Your task to perform on an android device: Play the latest video from the BBC Image 0: 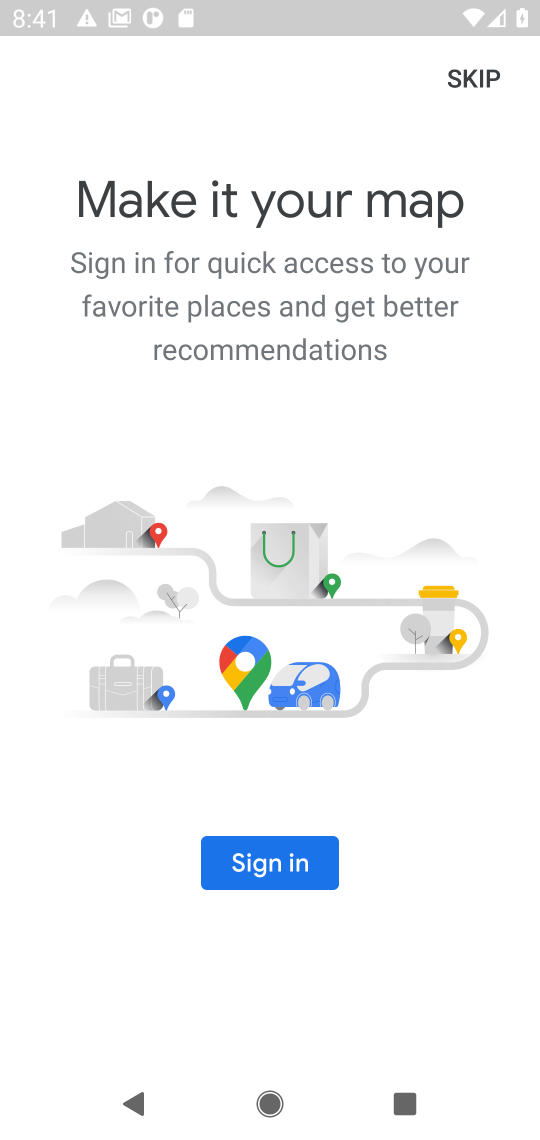
Step 0: press home button
Your task to perform on an android device: Play the latest video from the BBC Image 1: 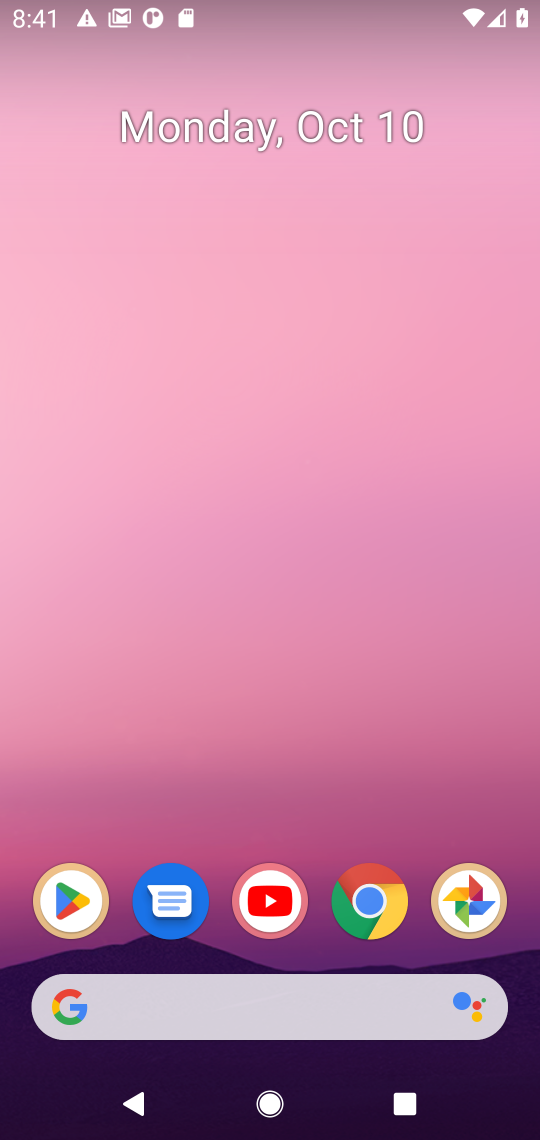
Step 1: click (294, 1021)
Your task to perform on an android device: Play the latest video from the BBC Image 2: 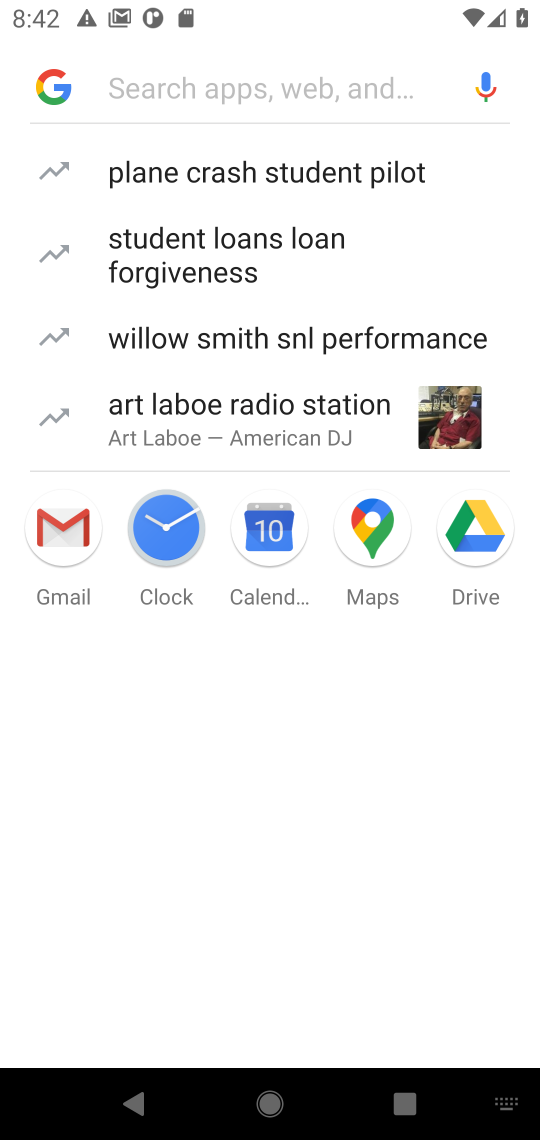
Step 2: press enter
Your task to perform on an android device: Play the latest video from the BBC Image 3: 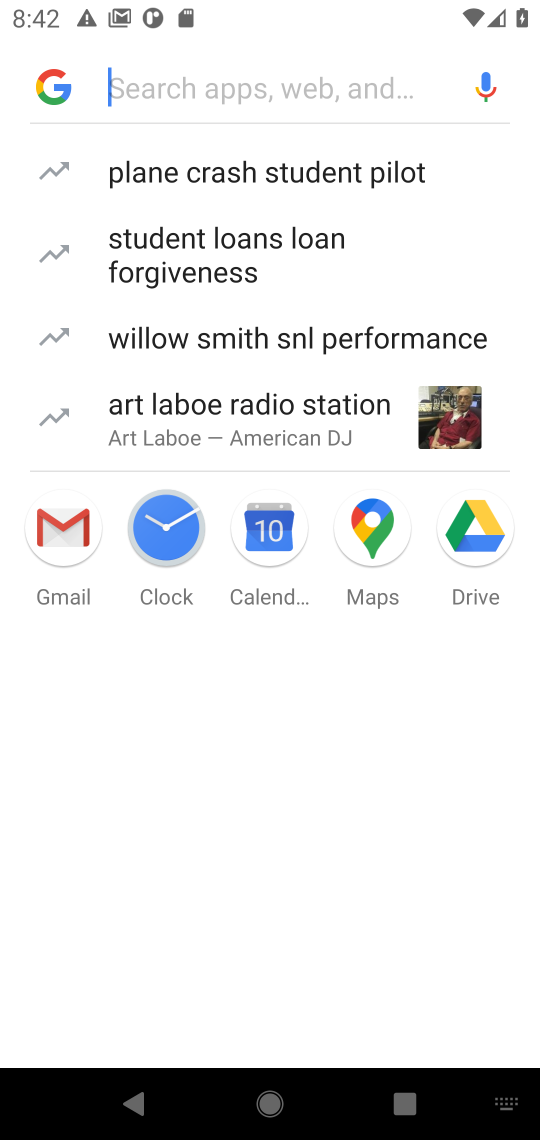
Step 3: type "Play the latest video from the BBC"
Your task to perform on an android device: Play the latest video from the BBC Image 4: 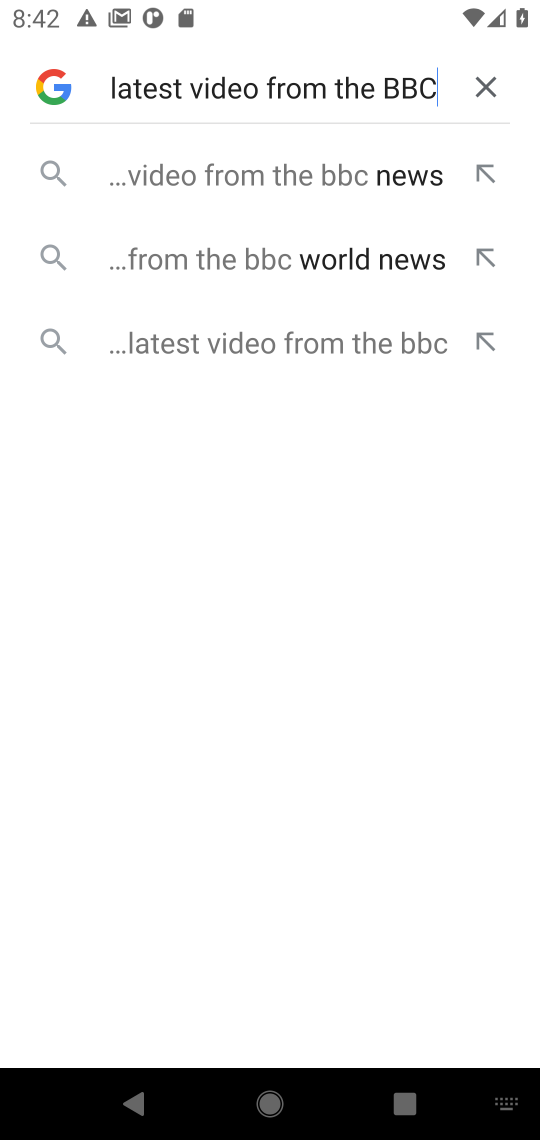
Step 4: press enter
Your task to perform on an android device: Play the latest video from the BBC Image 5: 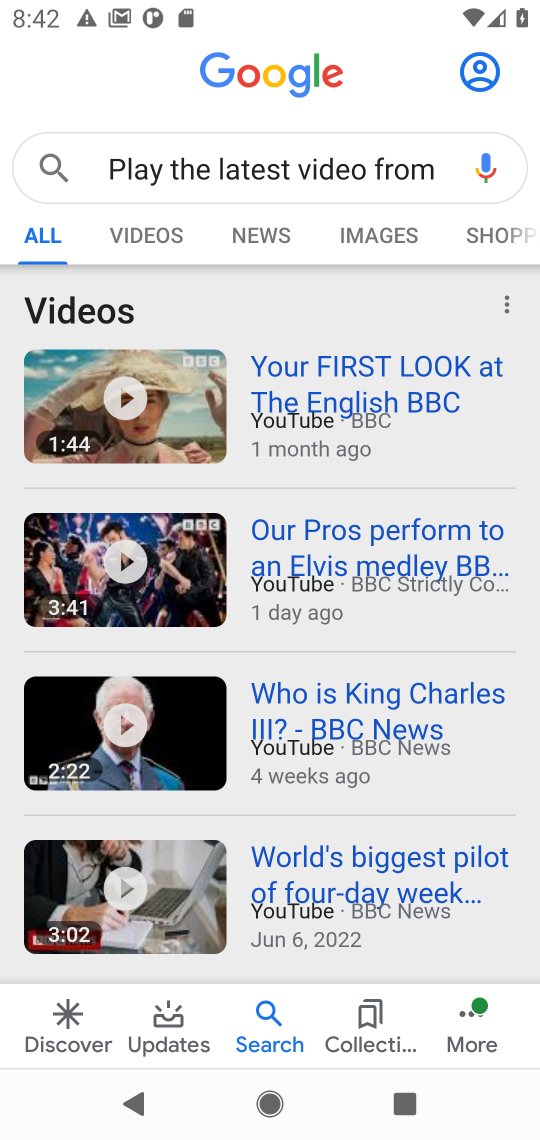
Step 5: click (126, 396)
Your task to perform on an android device: Play the latest video from the BBC Image 6: 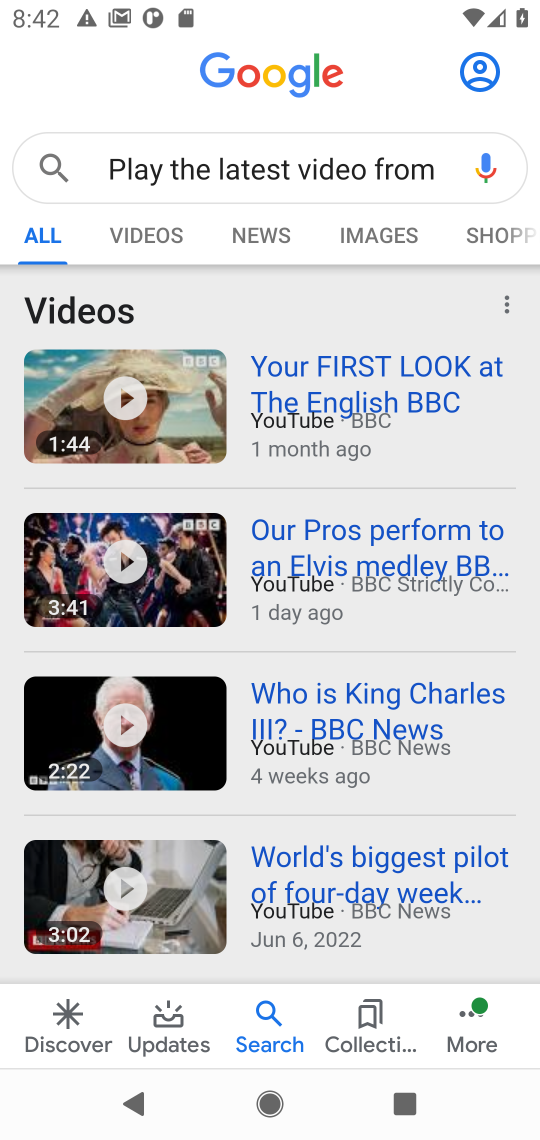
Step 6: click (359, 355)
Your task to perform on an android device: Play the latest video from the BBC Image 7: 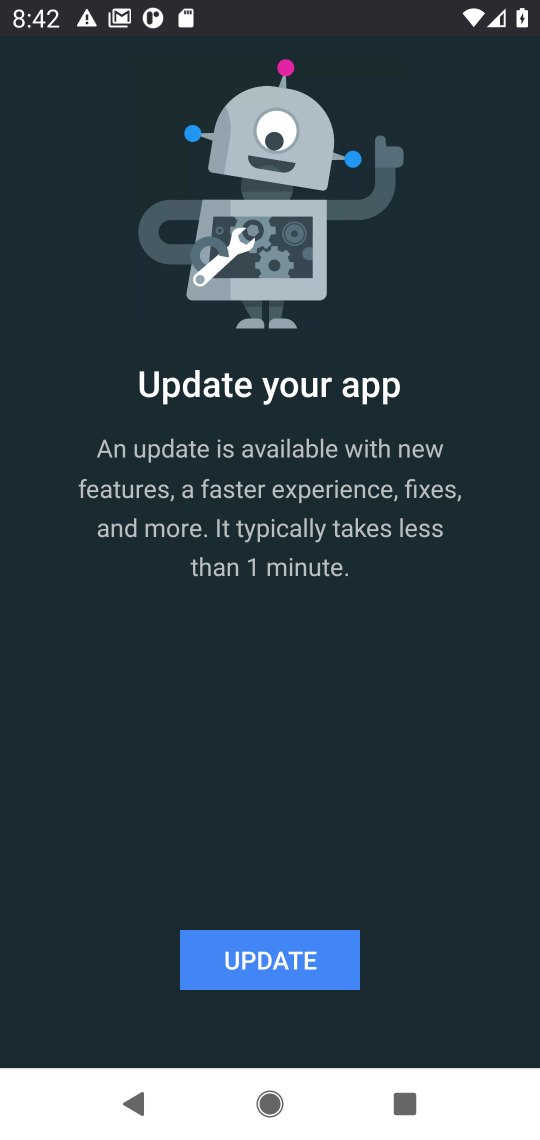
Step 7: click (283, 972)
Your task to perform on an android device: Play the latest video from the BBC Image 8: 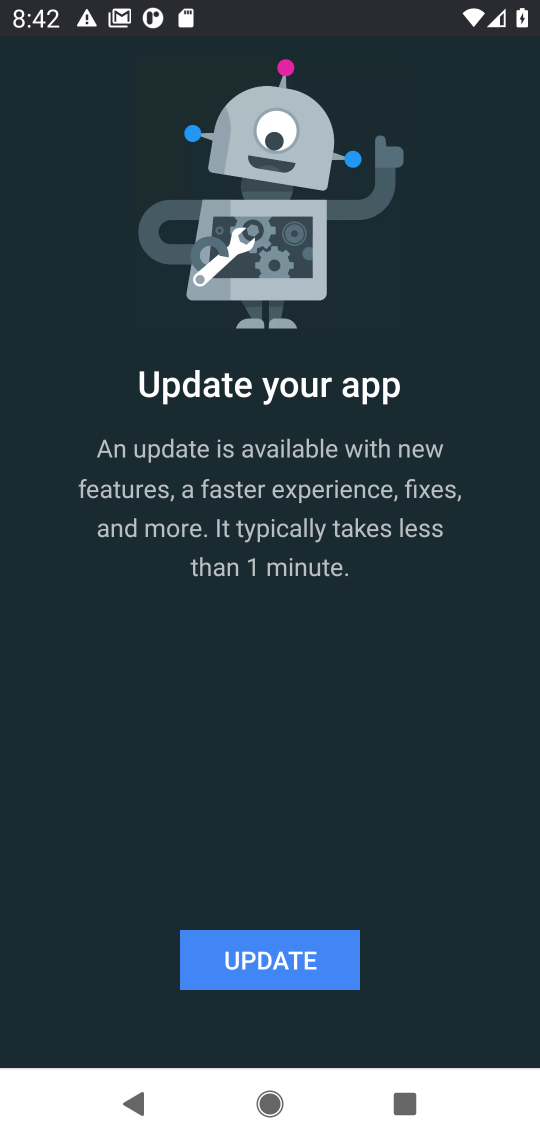
Step 8: click (272, 985)
Your task to perform on an android device: Play the latest video from the BBC Image 9: 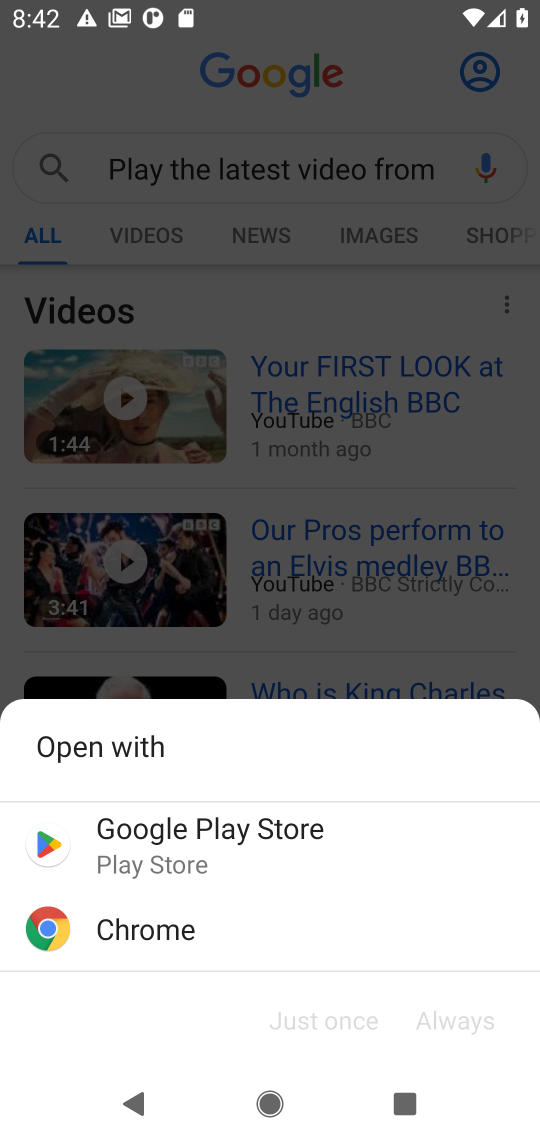
Step 9: click (213, 845)
Your task to perform on an android device: Play the latest video from the BBC Image 10: 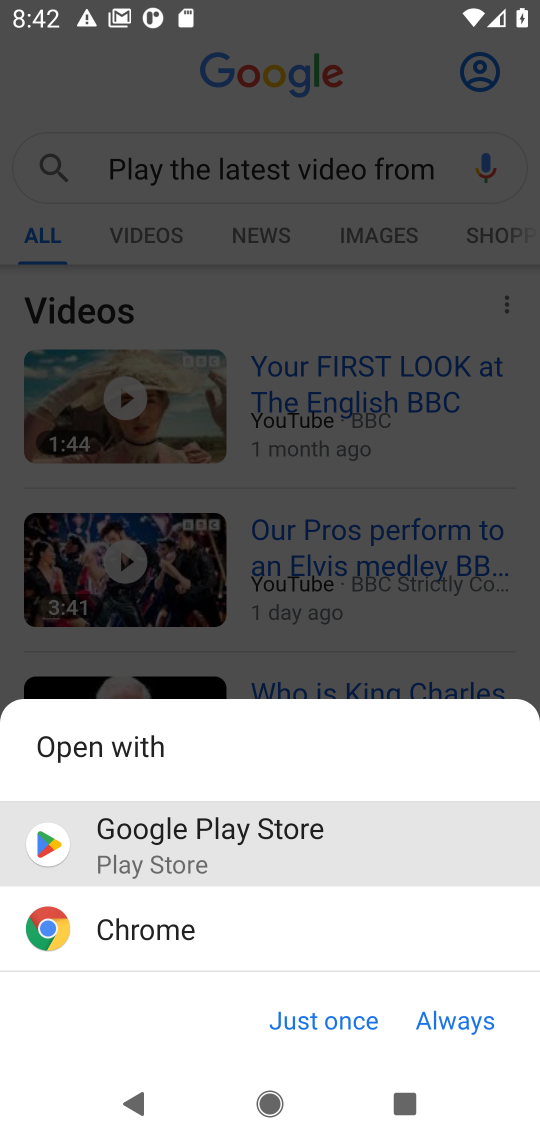
Step 10: click (341, 1028)
Your task to perform on an android device: Play the latest video from the BBC Image 11: 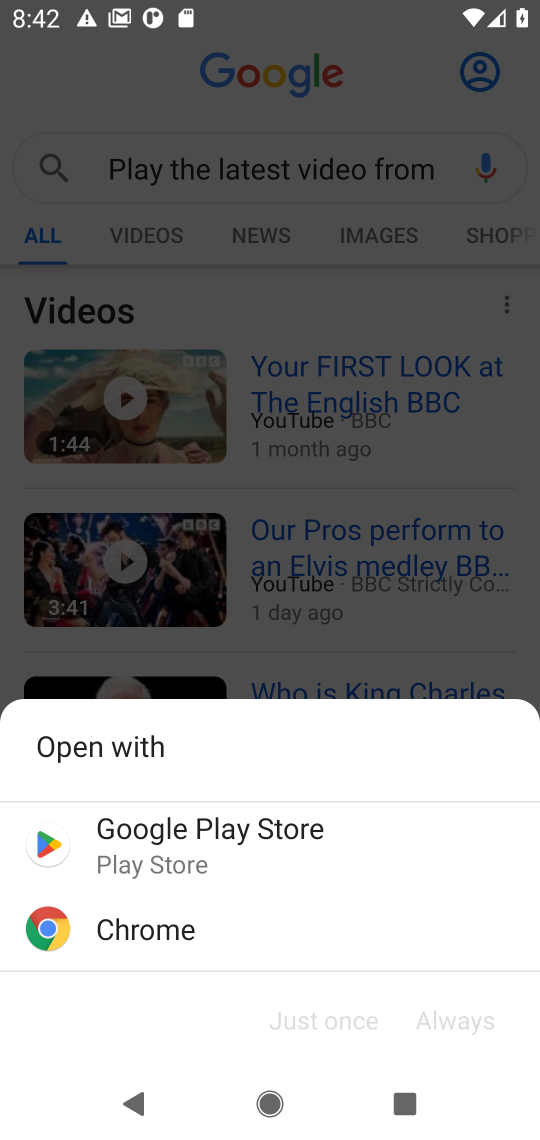
Step 11: task complete